Your task to perform on an android device: Open Yahoo.com Image 0: 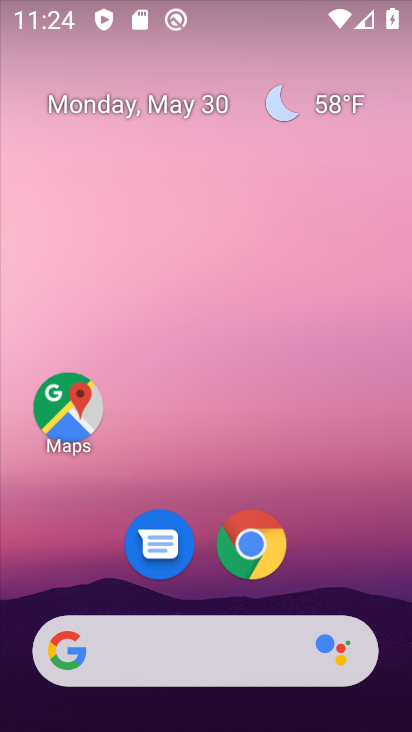
Step 0: click (171, 667)
Your task to perform on an android device: Open Yahoo.com Image 1: 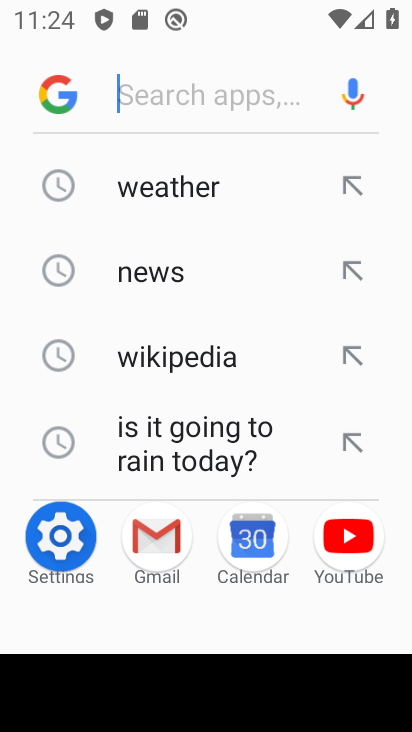
Step 1: type "yahoo.com"
Your task to perform on an android device: Open Yahoo.com Image 2: 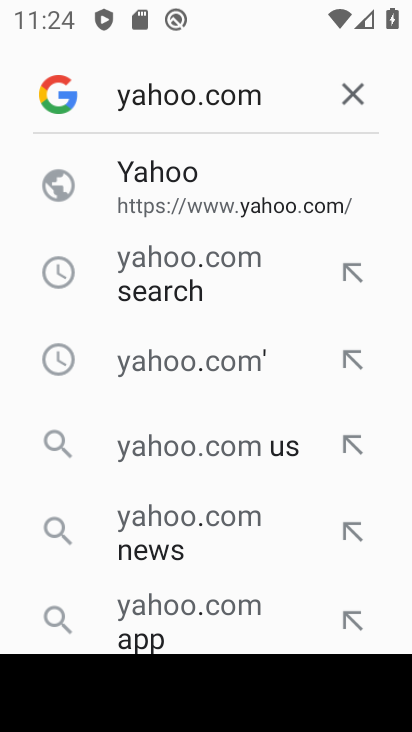
Step 2: click (159, 210)
Your task to perform on an android device: Open Yahoo.com Image 3: 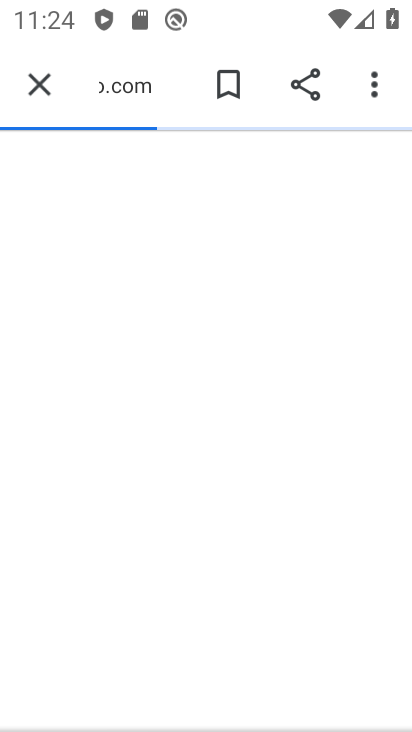
Step 3: task complete